Your task to perform on an android device: Open Chrome and go to the settings page Image 0: 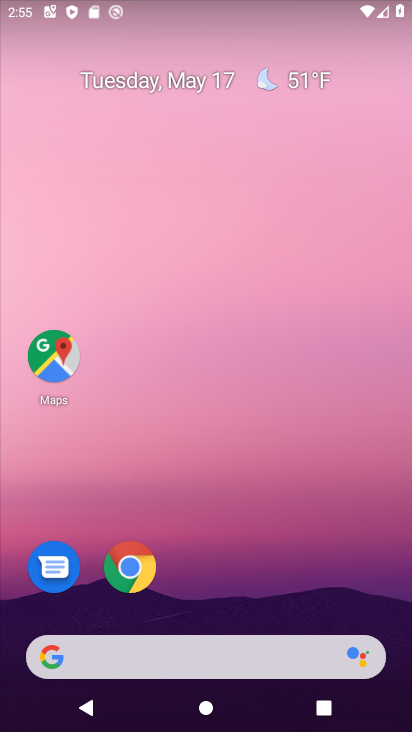
Step 0: click (133, 588)
Your task to perform on an android device: Open Chrome and go to the settings page Image 1: 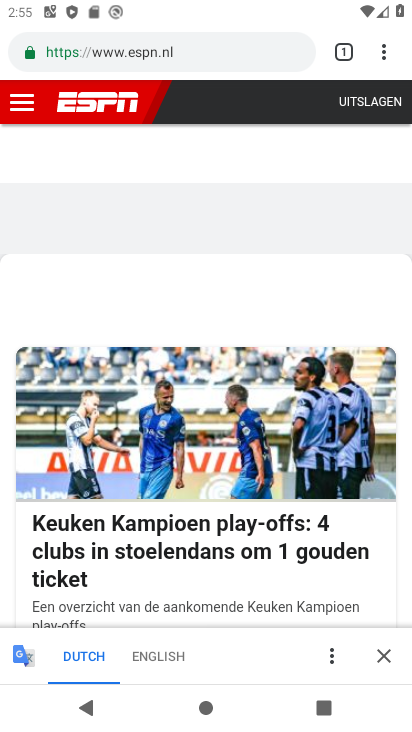
Step 1: task complete